Your task to perform on an android device: Open the Play Movies app and select the watchlist tab. Image 0: 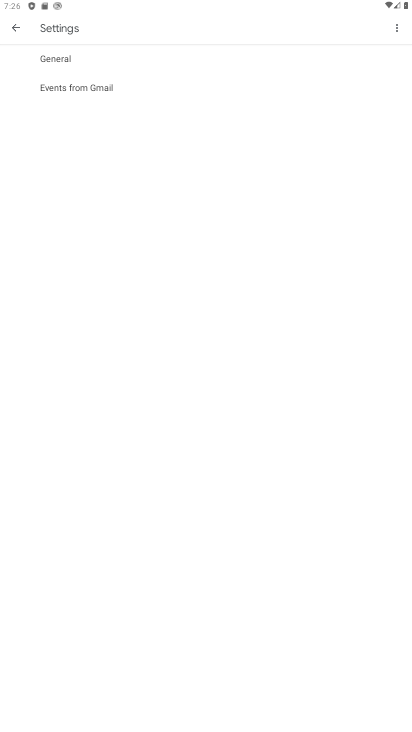
Step 0: press home button
Your task to perform on an android device: Open the Play Movies app and select the watchlist tab. Image 1: 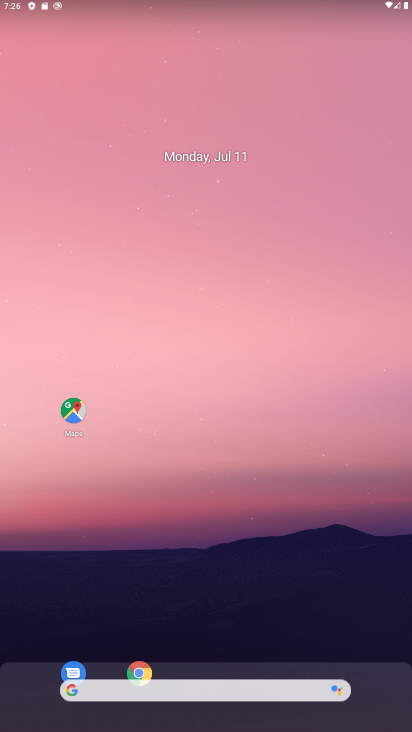
Step 1: drag from (220, 694) to (297, 164)
Your task to perform on an android device: Open the Play Movies app and select the watchlist tab. Image 2: 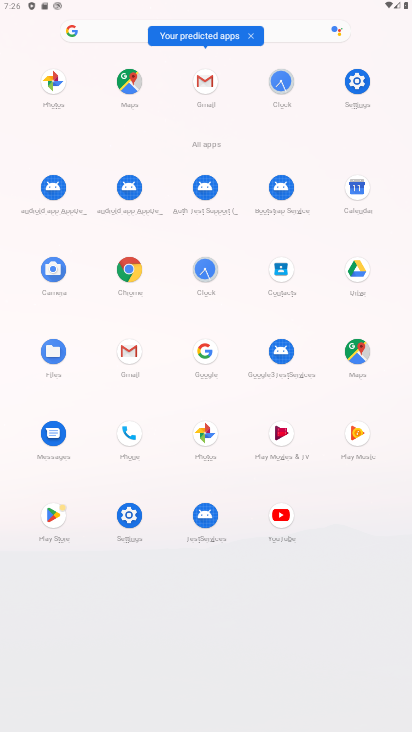
Step 2: click (283, 437)
Your task to perform on an android device: Open the Play Movies app and select the watchlist tab. Image 3: 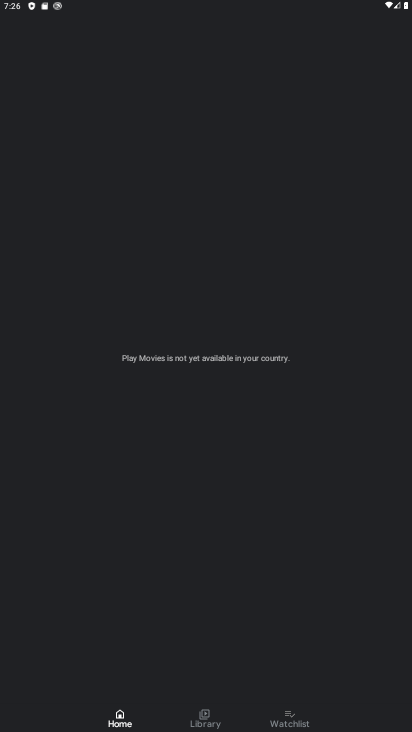
Step 3: click (283, 726)
Your task to perform on an android device: Open the Play Movies app and select the watchlist tab. Image 4: 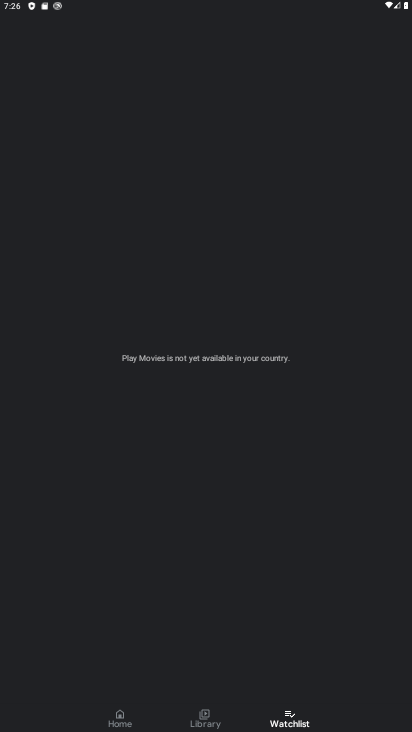
Step 4: task complete